Your task to perform on an android device: When is my next meeting? Image 0: 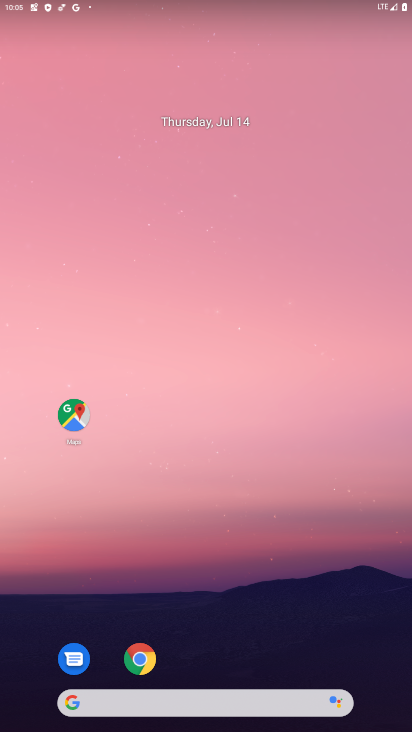
Step 0: drag from (289, 615) to (229, 260)
Your task to perform on an android device: When is my next meeting? Image 1: 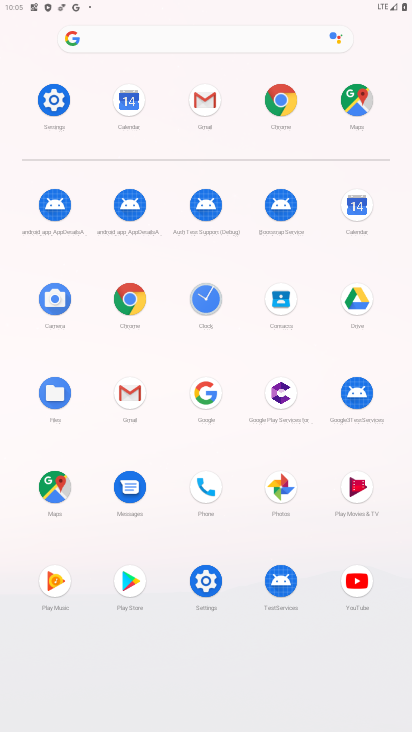
Step 1: click (359, 200)
Your task to perform on an android device: When is my next meeting? Image 2: 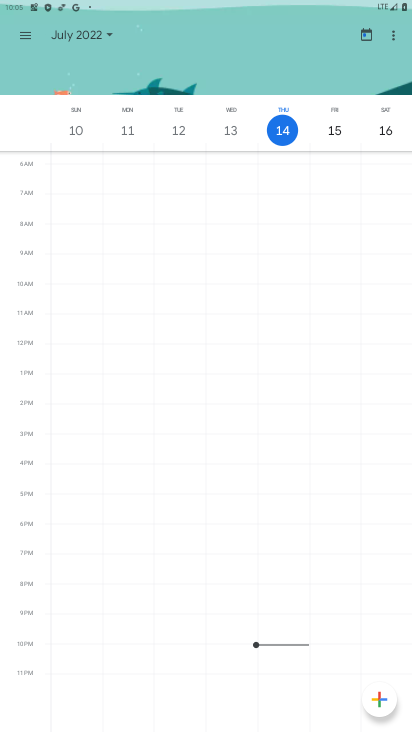
Step 2: task complete